Your task to perform on an android device: toggle show notifications on the lock screen Image 0: 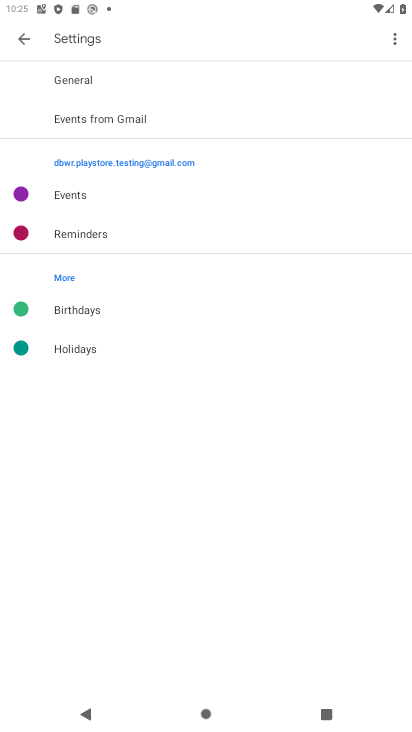
Step 0: press back button
Your task to perform on an android device: toggle show notifications on the lock screen Image 1: 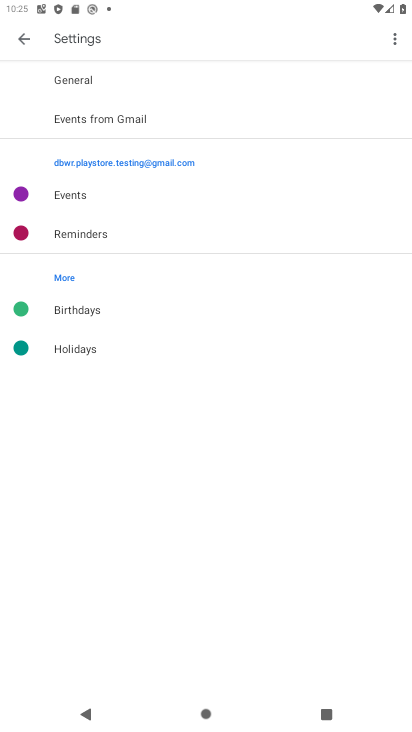
Step 1: press home button
Your task to perform on an android device: toggle show notifications on the lock screen Image 2: 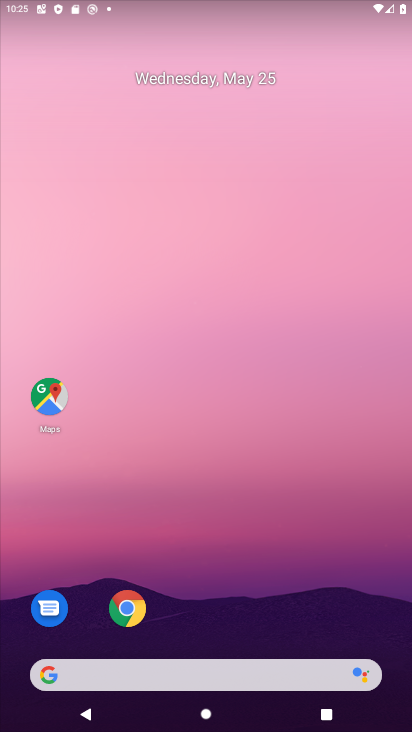
Step 2: drag from (228, 618) to (257, 156)
Your task to perform on an android device: toggle show notifications on the lock screen Image 3: 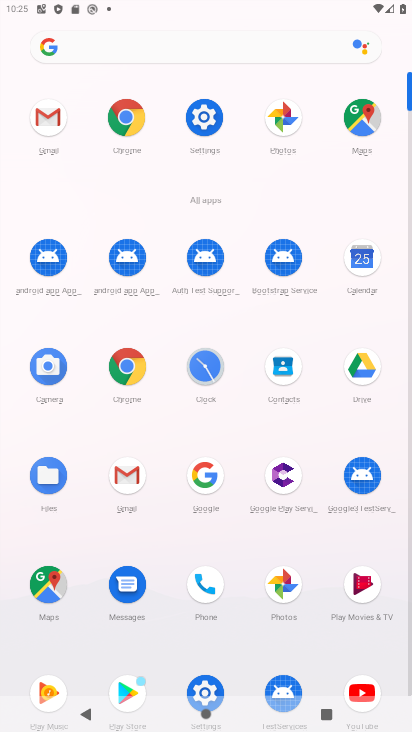
Step 3: click (205, 117)
Your task to perform on an android device: toggle show notifications on the lock screen Image 4: 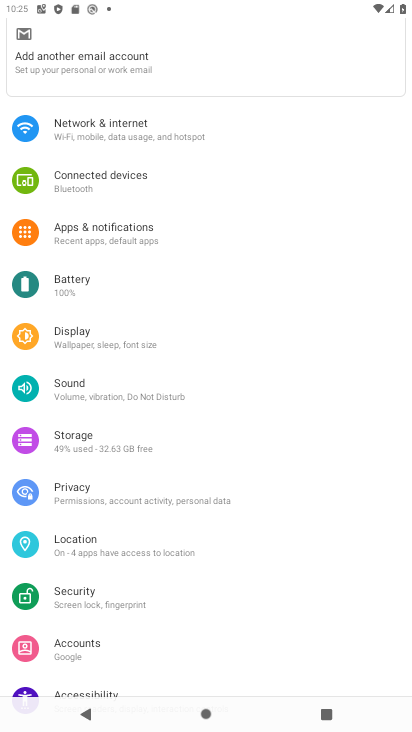
Step 4: click (118, 245)
Your task to perform on an android device: toggle show notifications on the lock screen Image 5: 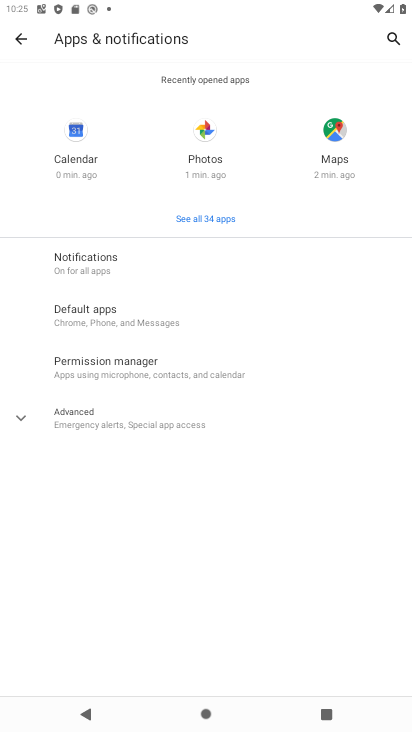
Step 5: click (87, 267)
Your task to perform on an android device: toggle show notifications on the lock screen Image 6: 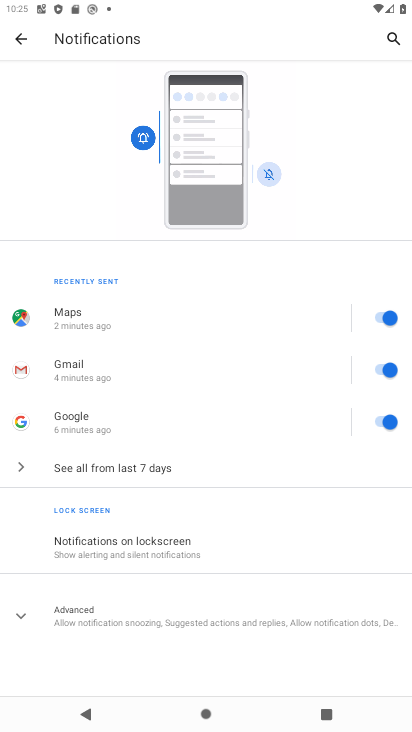
Step 6: click (135, 551)
Your task to perform on an android device: toggle show notifications on the lock screen Image 7: 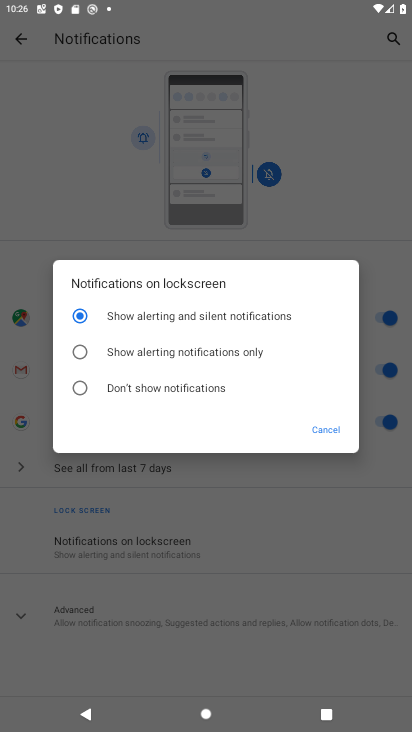
Step 7: click (79, 385)
Your task to perform on an android device: toggle show notifications on the lock screen Image 8: 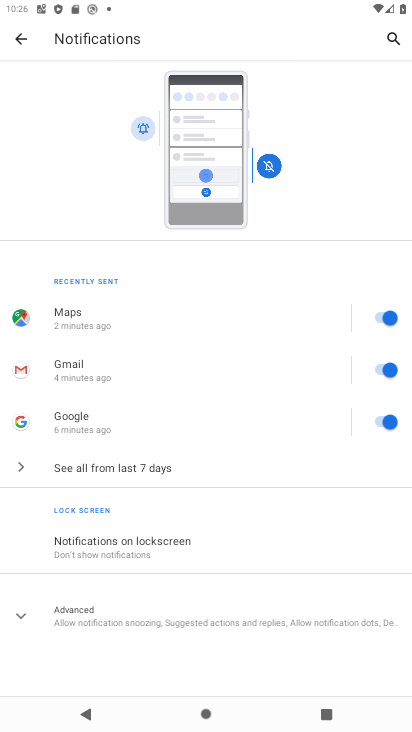
Step 8: task complete